Your task to perform on an android device: turn vacation reply on in the gmail app Image 0: 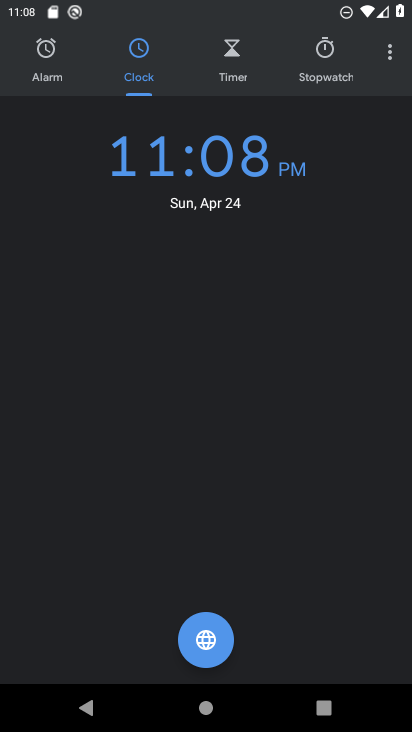
Step 0: press home button
Your task to perform on an android device: turn vacation reply on in the gmail app Image 1: 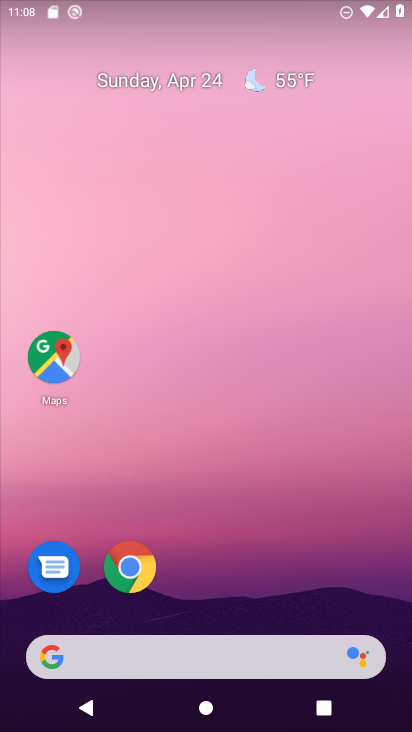
Step 1: drag from (370, 415) to (350, 107)
Your task to perform on an android device: turn vacation reply on in the gmail app Image 2: 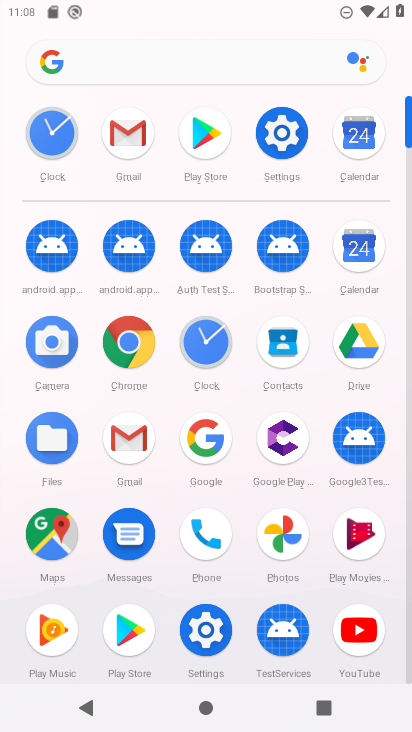
Step 2: click (123, 439)
Your task to perform on an android device: turn vacation reply on in the gmail app Image 3: 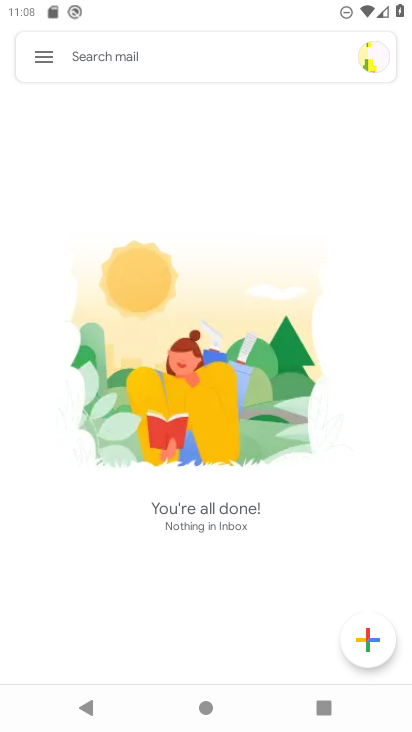
Step 3: click (46, 56)
Your task to perform on an android device: turn vacation reply on in the gmail app Image 4: 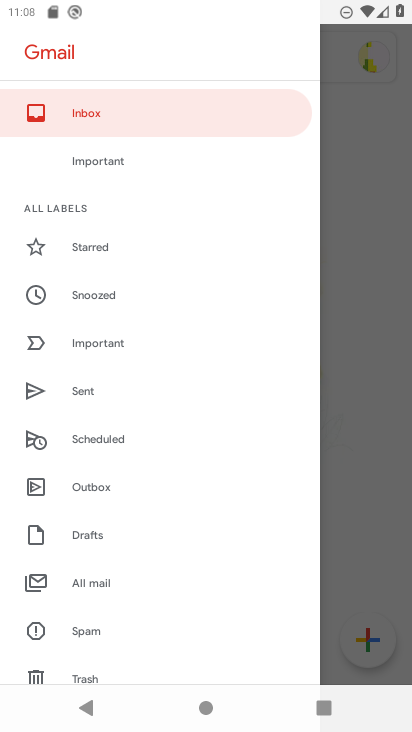
Step 4: drag from (232, 610) to (238, 322)
Your task to perform on an android device: turn vacation reply on in the gmail app Image 5: 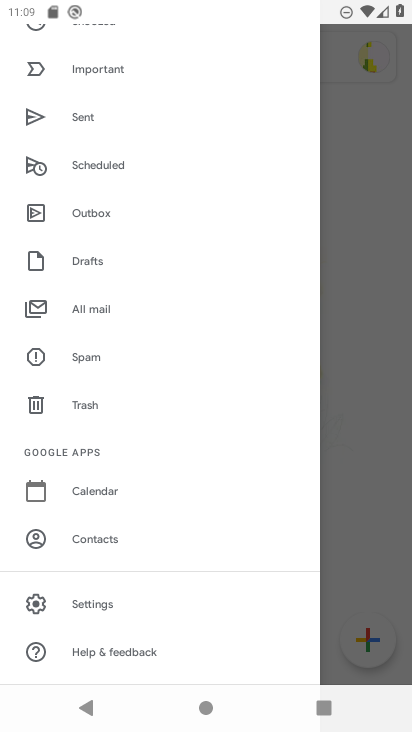
Step 5: click (85, 599)
Your task to perform on an android device: turn vacation reply on in the gmail app Image 6: 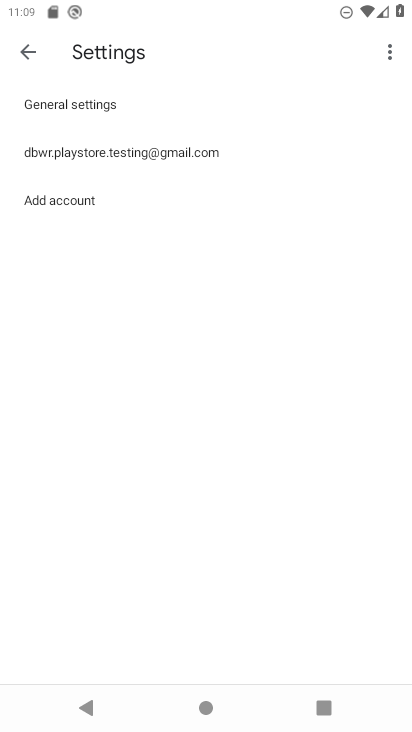
Step 6: click (82, 146)
Your task to perform on an android device: turn vacation reply on in the gmail app Image 7: 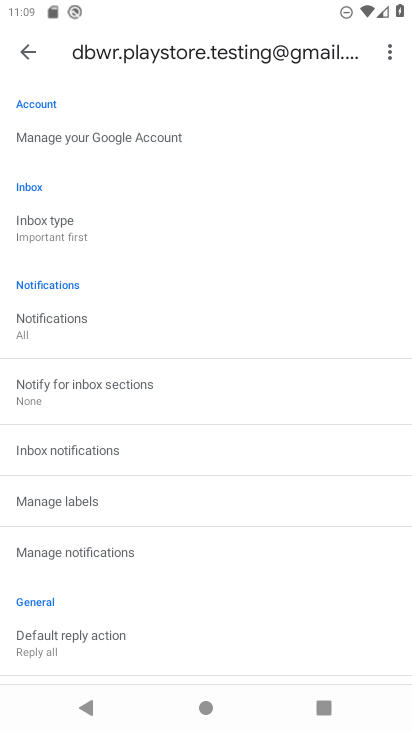
Step 7: drag from (237, 438) to (245, 332)
Your task to perform on an android device: turn vacation reply on in the gmail app Image 8: 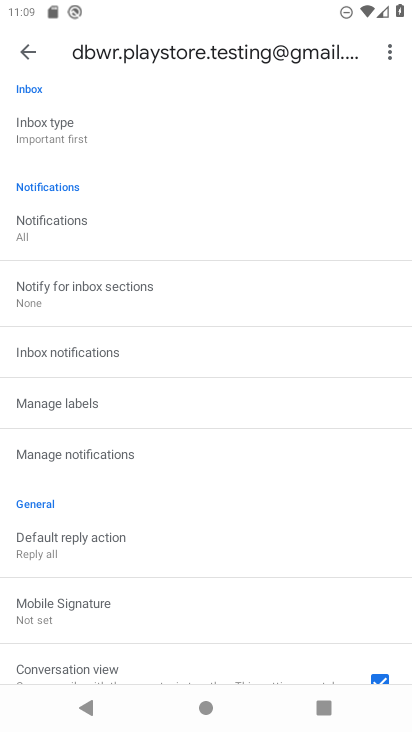
Step 8: click (218, 361)
Your task to perform on an android device: turn vacation reply on in the gmail app Image 9: 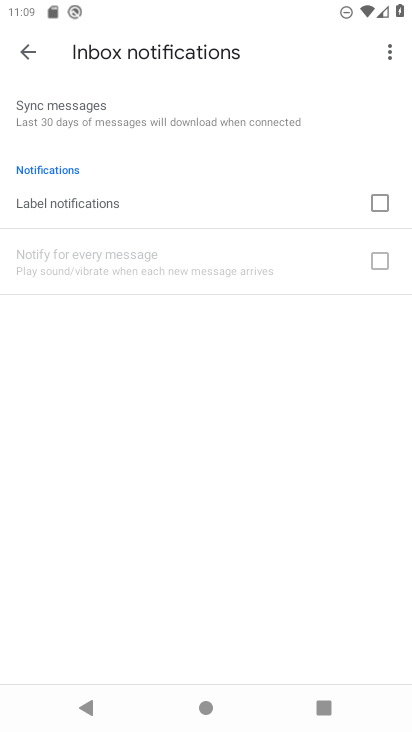
Step 9: click (24, 53)
Your task to perform on an android device: turn vacation reply on in the gmail app Image 10: 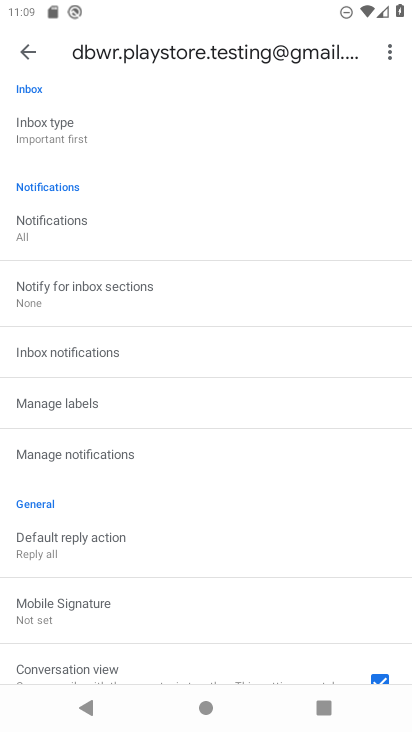
Step 10: click (19, 47)
Your task to perform on an android device: turn vacation reply on in the gmail app Image 11: 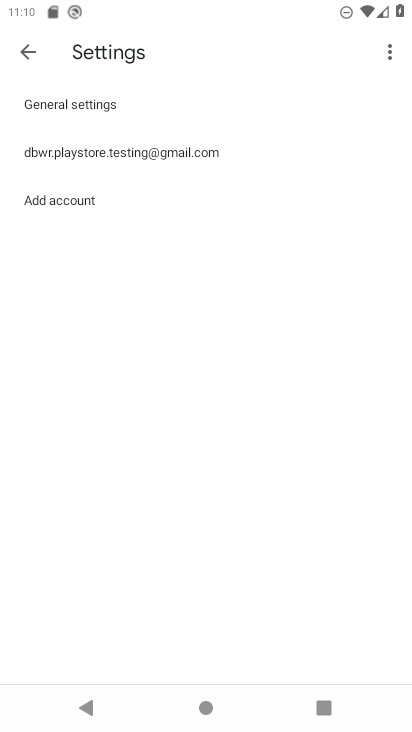
Step 11: click (64, 146)
Your task to perform on an android device: turn vacation reply on in the gmail app Image 12: 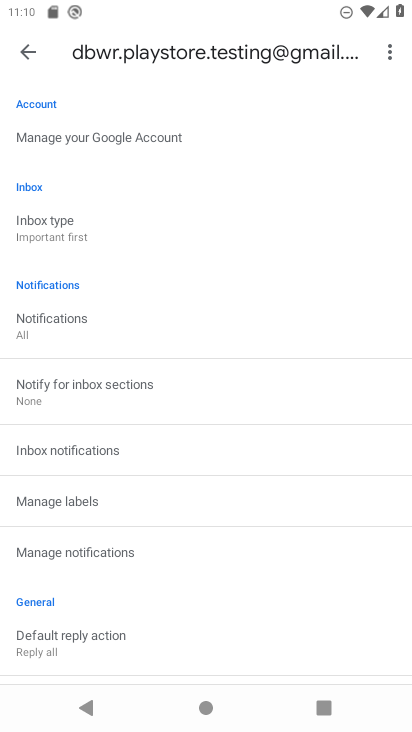
Step 12: drag from (288, 420) to (307, 249)
Your task to perform on an android device: turn vacation reply on in the gmail app Image 13: 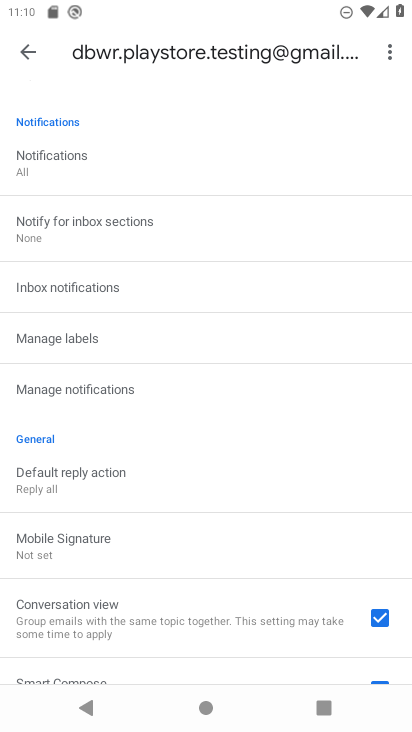
Step 13: drag from (279, 634) to (303, 282)
Your task to perform on an android device: turn vacation reply on in the gmail app Image 14: 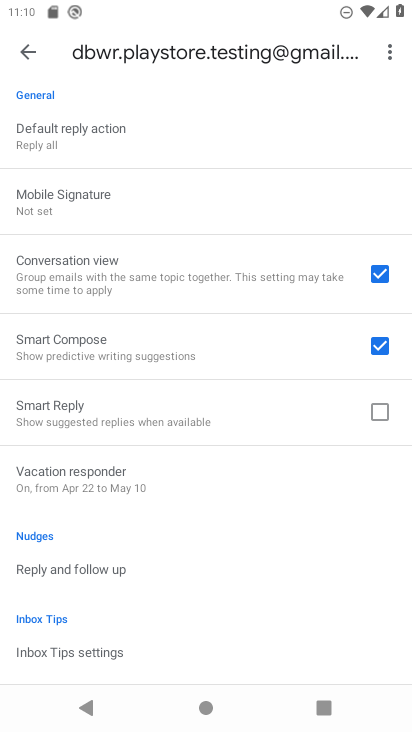
Step 14: click (375, 410)
Your task to perform on an android device: turn vacation reply on in the gmail app Image 15: 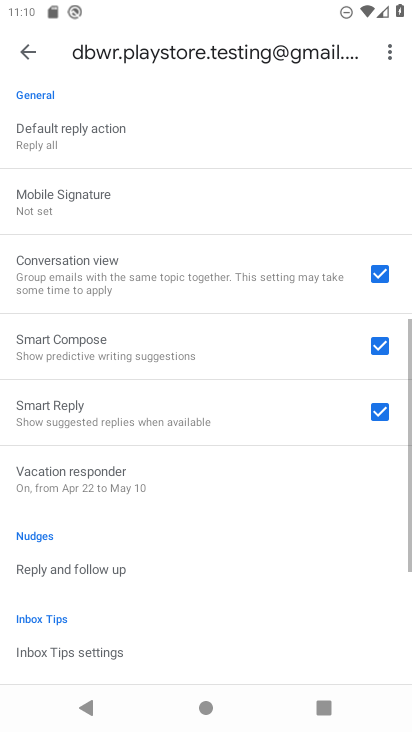
Step 15: task complete